Your task to perform on an android device: open wifi settings Image 0: 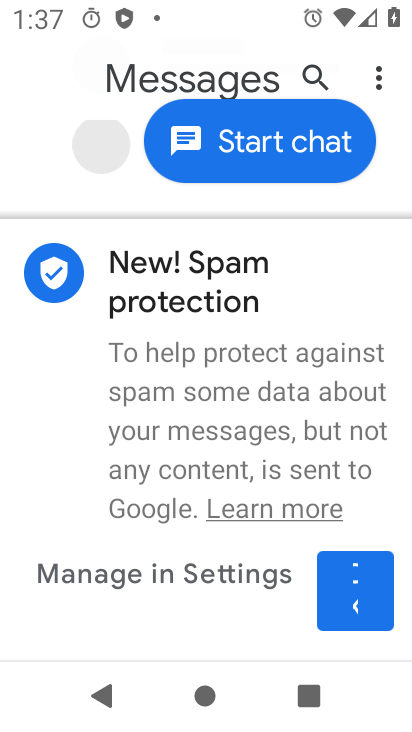
Step 0: press home button
Your task to perform on an android device: open wifi settings Image 1: 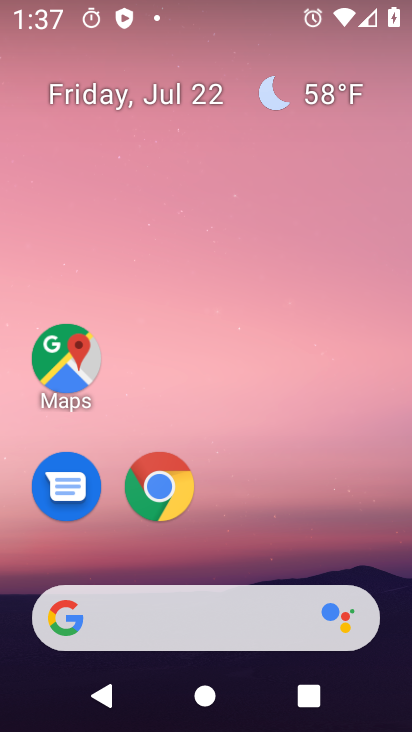
Step 1: drag from (377, 523) to (373, 291)
Your task to perform on an android device: open wifi settings Image 2: 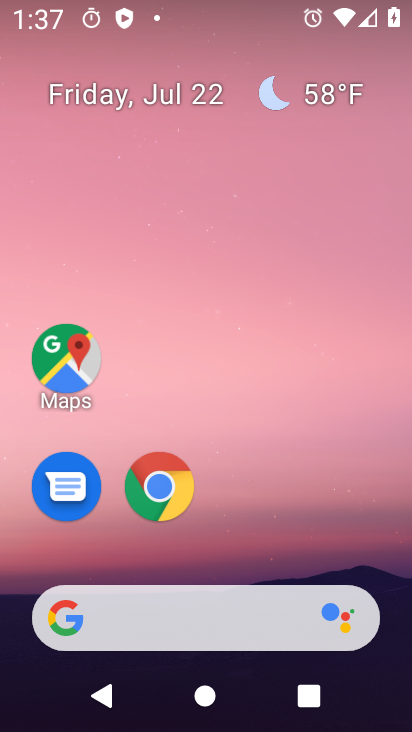
Step 2: drag from (334, 511) to (344, 42)
Your task to perform on an android device: open wifi settings Image 3: 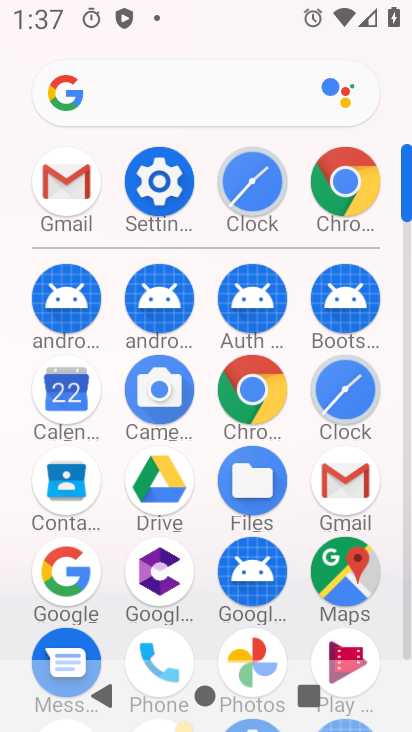
Step 3: click (163, 205)
Your task to perform on an android device: open wifi settings Image 4: 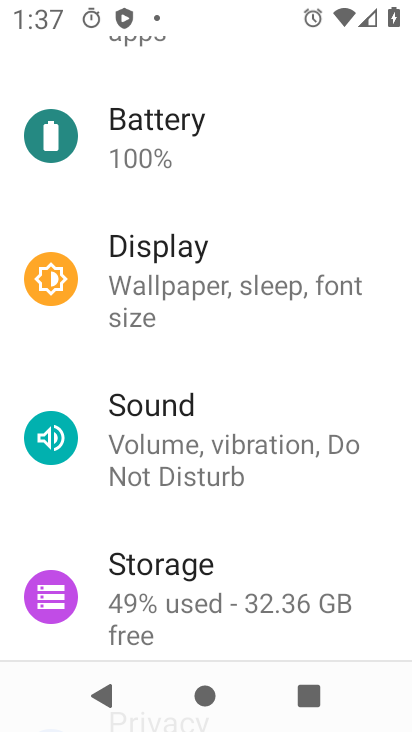
Step 4: drag from (370, 480) to (364, 367)
Your task to perform on an android device: open wifi settings Image 5: 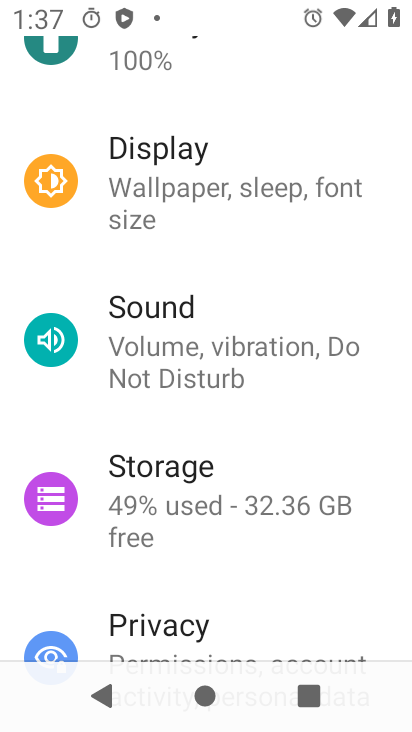
Step 5: drag from (375, 485) to (372, 375)
Your task to perform on an android device: open wifi settings Image 6: 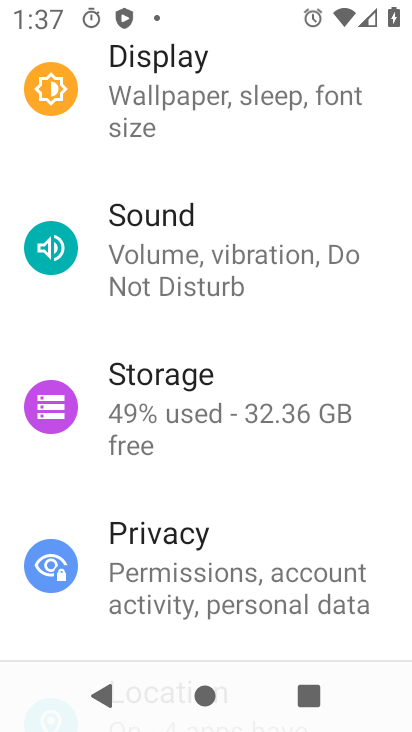
Step 6: drag from (367, 518) to (354, 378)
Your task to perform on an android device: open wifi settings Image 7: 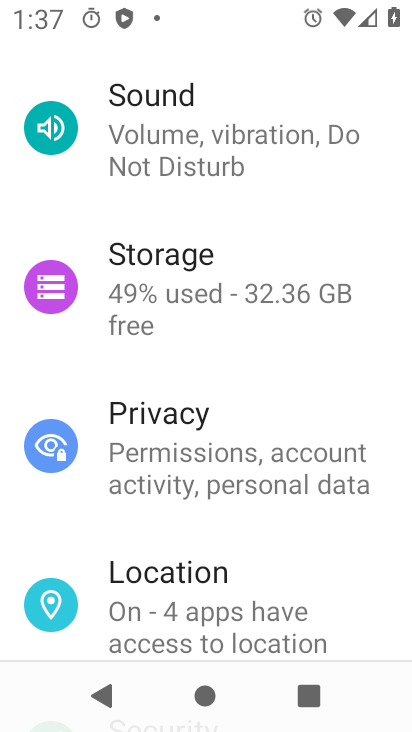
Step 7: drag from (363, 557) to (365, 428)
Your task to perform on an android device: open wifi settings Image 8: 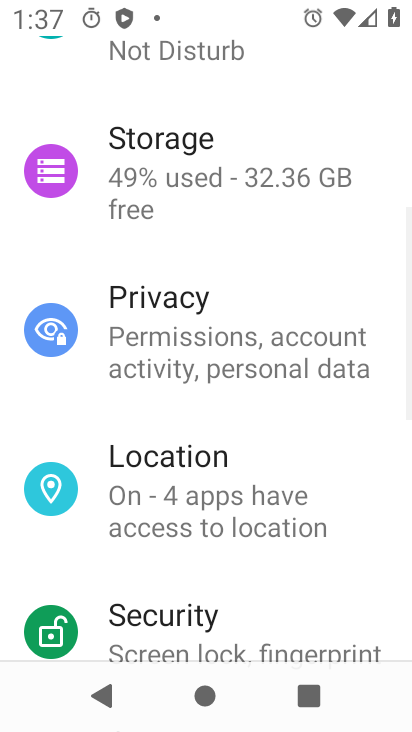
Step 8: drag from (365, 326) to (371, 428)
Your task to perform on an android device: open wifi settings Image 9: 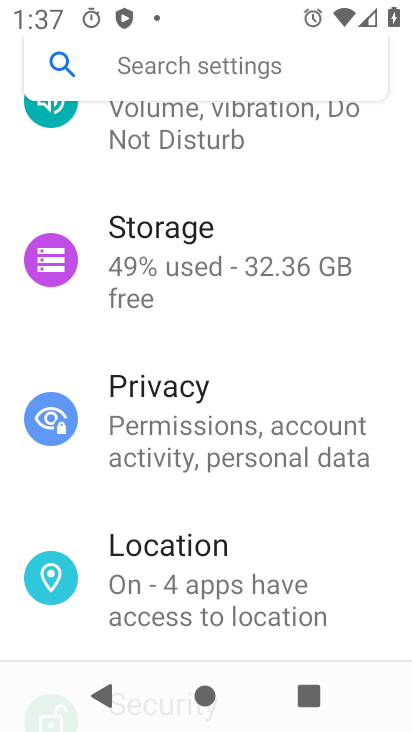
Step 9: drag from (371, 254) to (375, 385)
Your task to perform on an android device: open wifi settings Image 10: 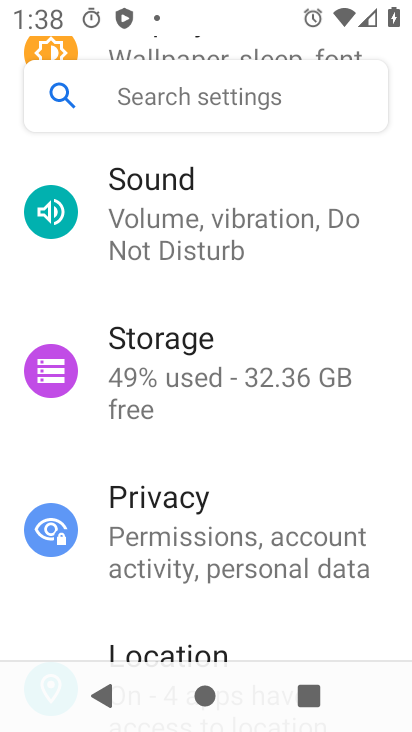
Step 10: drag from (353, 313) to (362, 376)
Your task to perform on an android device: open wifi settings Image 11: 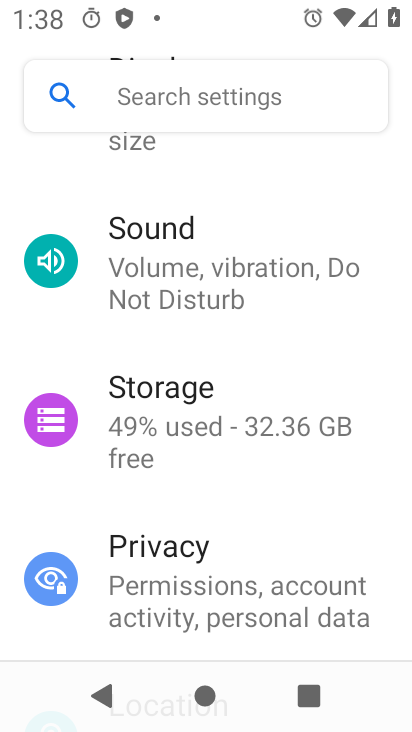
Step 11: drag from (365, 218) to (365, 349)
Your task to perform on an android device: open wifi settings Image 12: 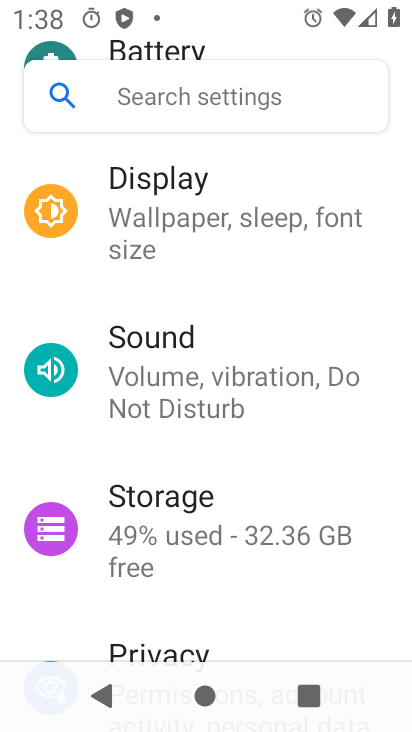
Step 12: drag from (375, 227) to (375, 337)
Your task to perform on an android device: open wifi settings Image 13: 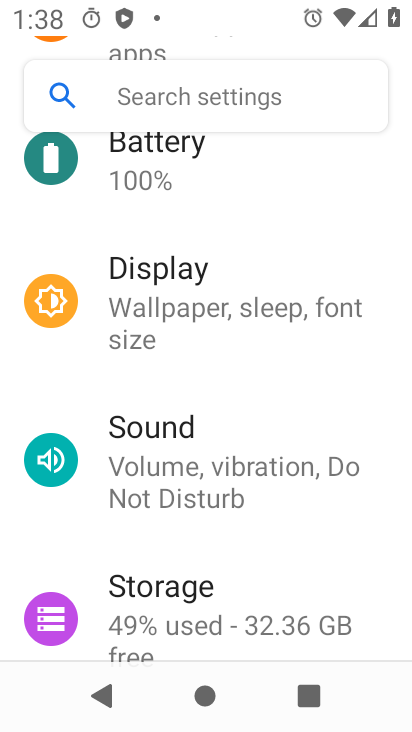
Step 13: drag from (369, 191) to (362, 337)
Your task to perform on an android device: open wifi settings Image 14: 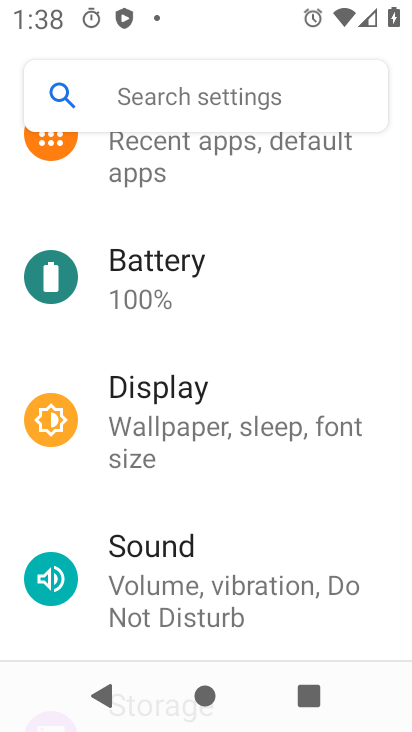
Step 14: drag from (362, 214) to (362, 322)
Your task to perform on an android device: open wifi settings Image 15: 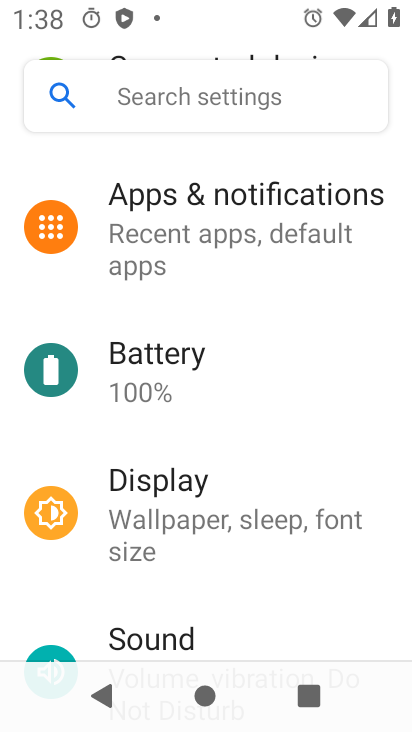
Step 15: drag from (357, 223) to (355, 332)
Your task to perform on an android device: open wifi settings Image 16: 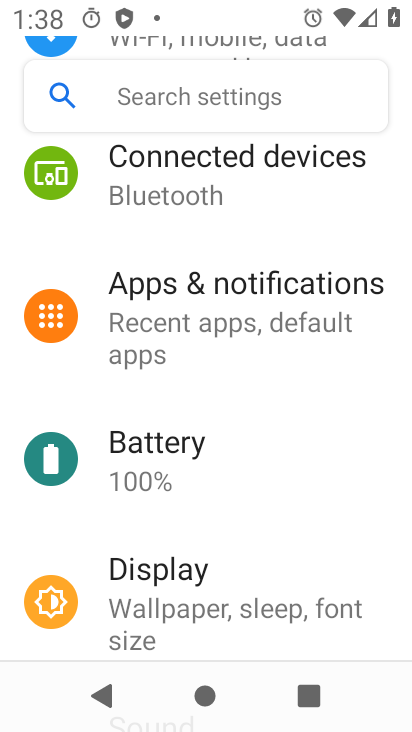
Step 16: drag from (355, 204) to (356, 314)
Your task to perform on an android device: open wifi settings Image 17: 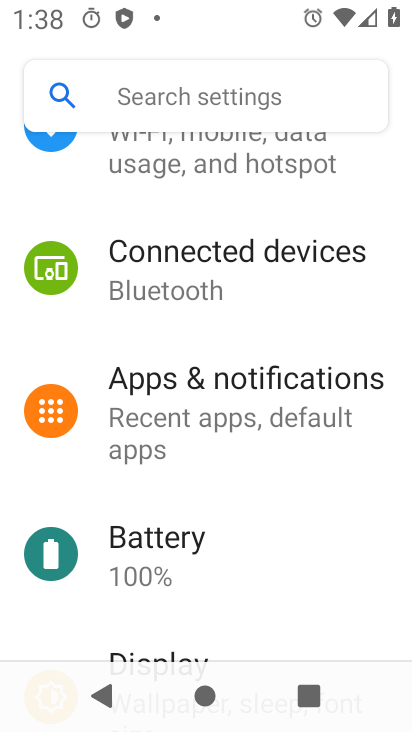
Step 17: drag from (365, 199) to (365, 337)
Your task to perform on an android device: open wifi settings Image 18: 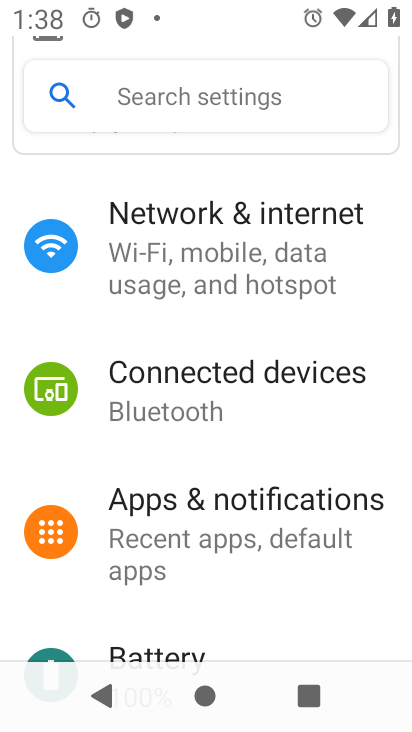
Step 18: click (322, 277)
Your task to perform on an android device: open wifi settings Image 19: 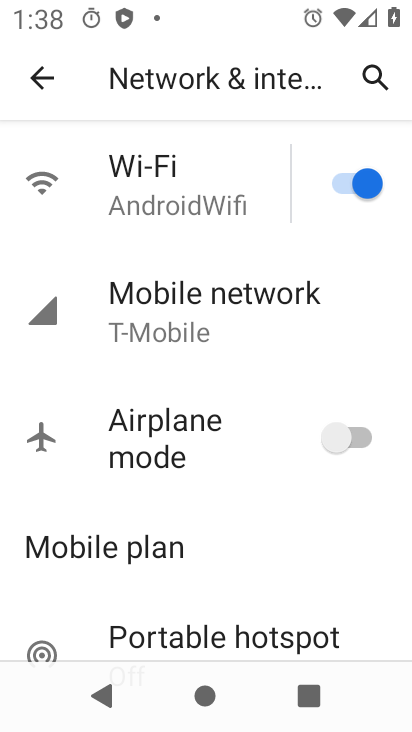
Step 19: click (196, 194)
Your task to perform on an android device: open wifi settings Image 20: 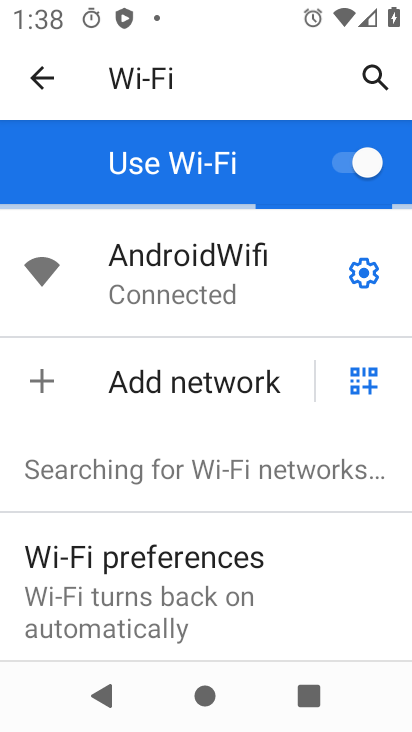
Step 20: task complete